Your task to perform on an android device: open app "WhatsApp Messenger" (install if not already installed) Image 0: 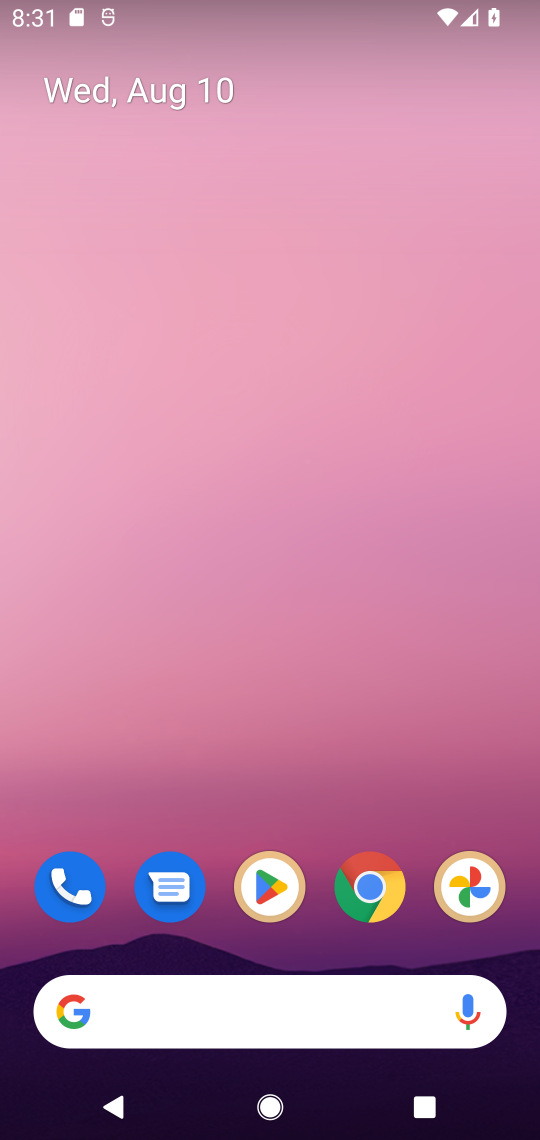
Step 0: drag from (307, 959) to (298, 153)
Your task to perform on an android device: open app "WhatsApp Messenger" (install if not already installed) Image 1: 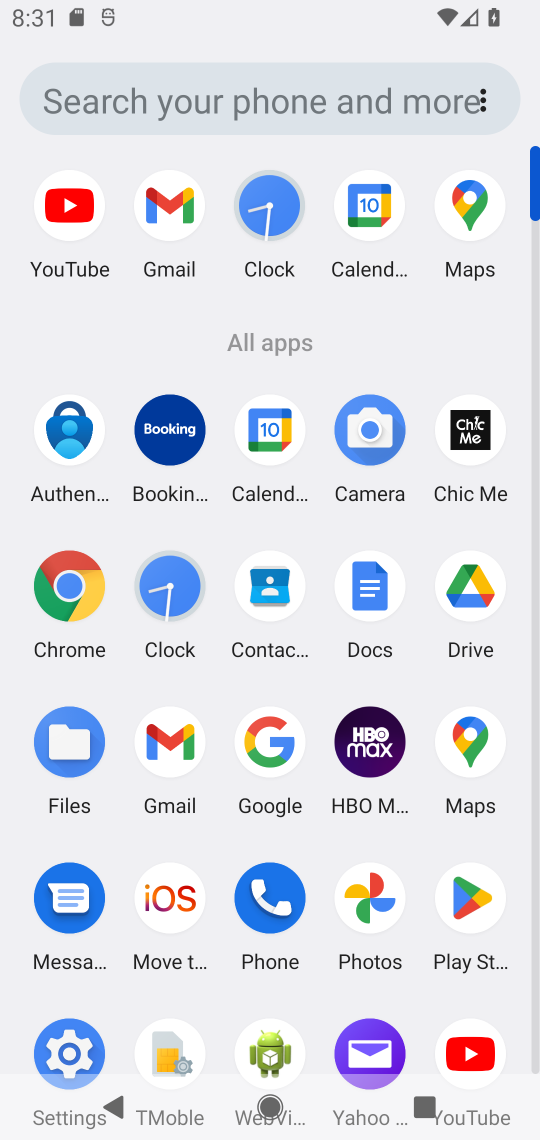
Step 1: click (502, 922)
Your task to perform on an android device: open app "WhatsApp Messenger" (install if not already installed) Image 2: 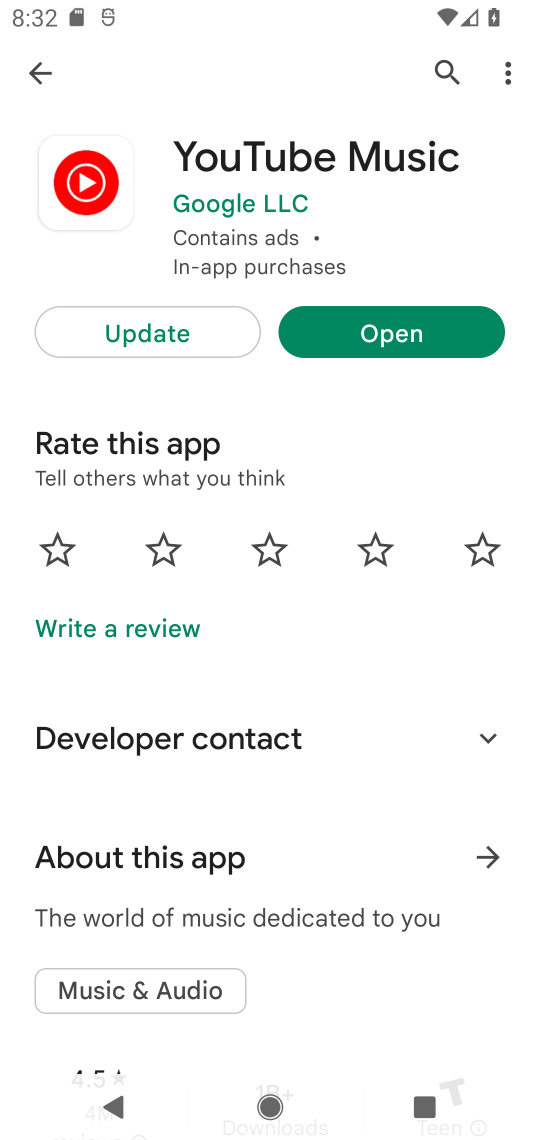
Step 2: click (439, 95)
Your task to perform on an android device: open app "WhatsApp Messenger" (install if not already installed) Image 3: 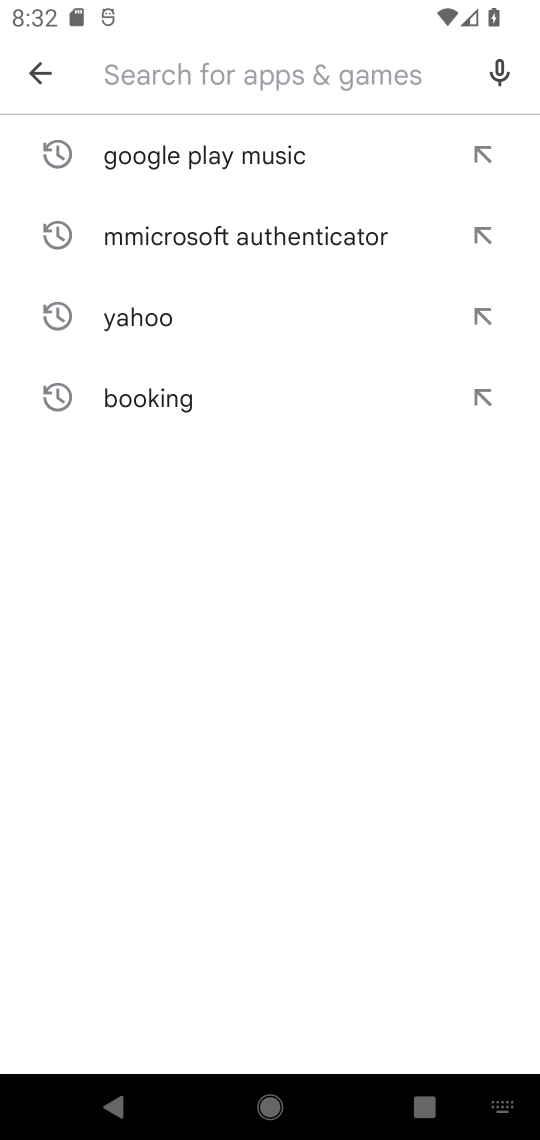
Step 3: type "whatapp"
Your task to perform on an android device: open app "WhatsApp Messenger" (install if not already installed) Image 4: 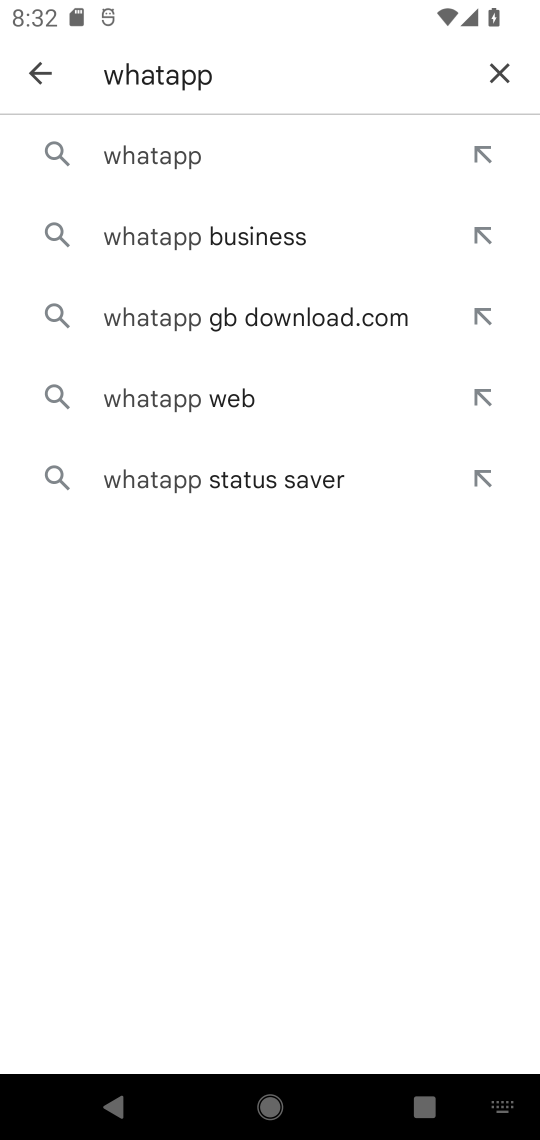
Step 4: click (236, 126)
Your task to perform on an android device: open app "WhatsApp Messenger" (install if not already installed) Image 5: 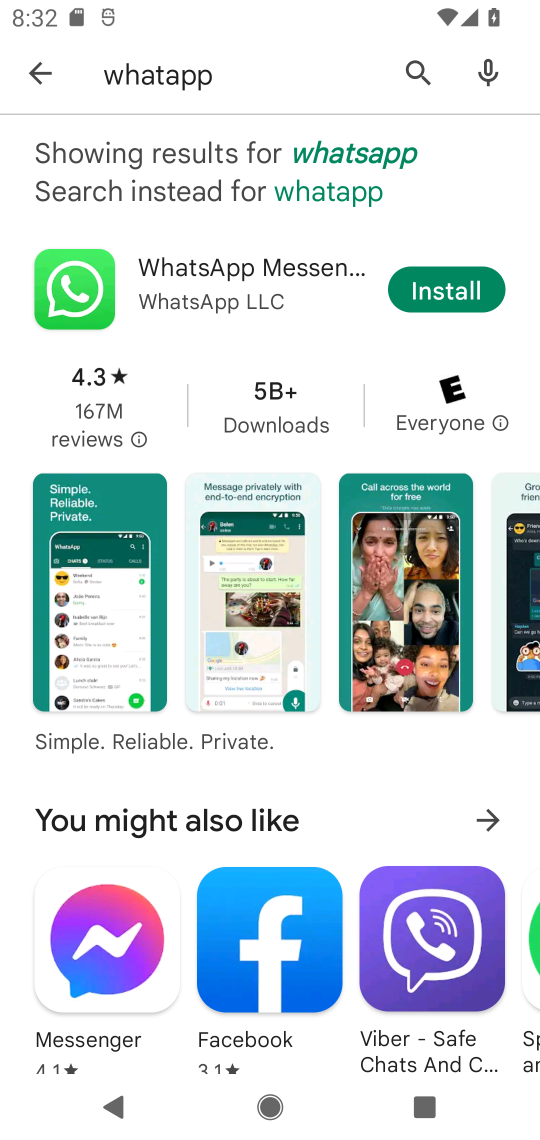
Step 5: click (432, 286)
Your task to perform on an android device: open app "WhatsApp Messenger" (install if not already installed) Image 6: 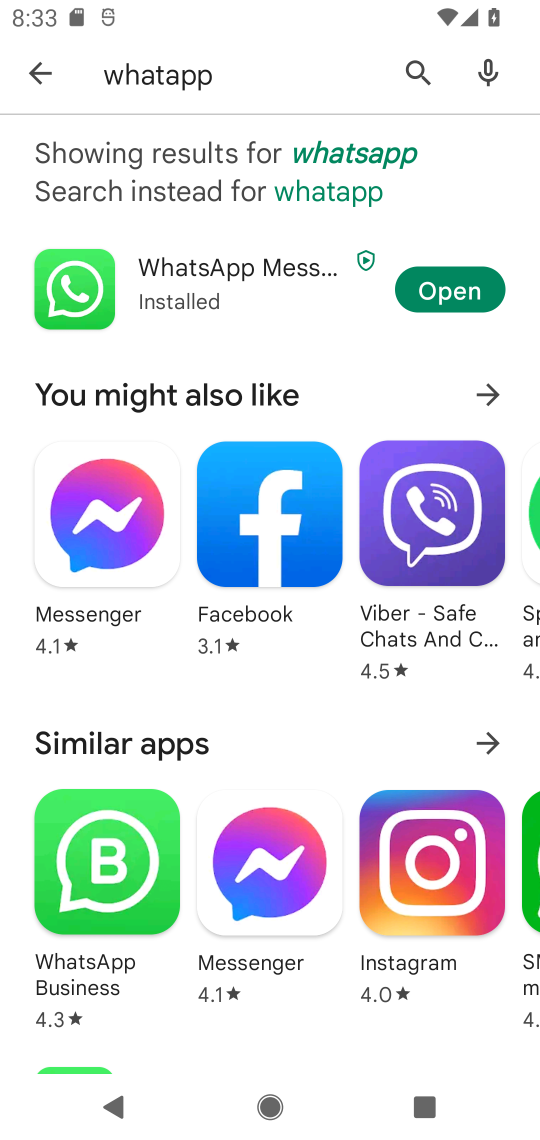
Step 6: click (450, 272)
Your task to perform on an android device: open app "WhatsApp Messenger" (install if not already installed) Image 7: 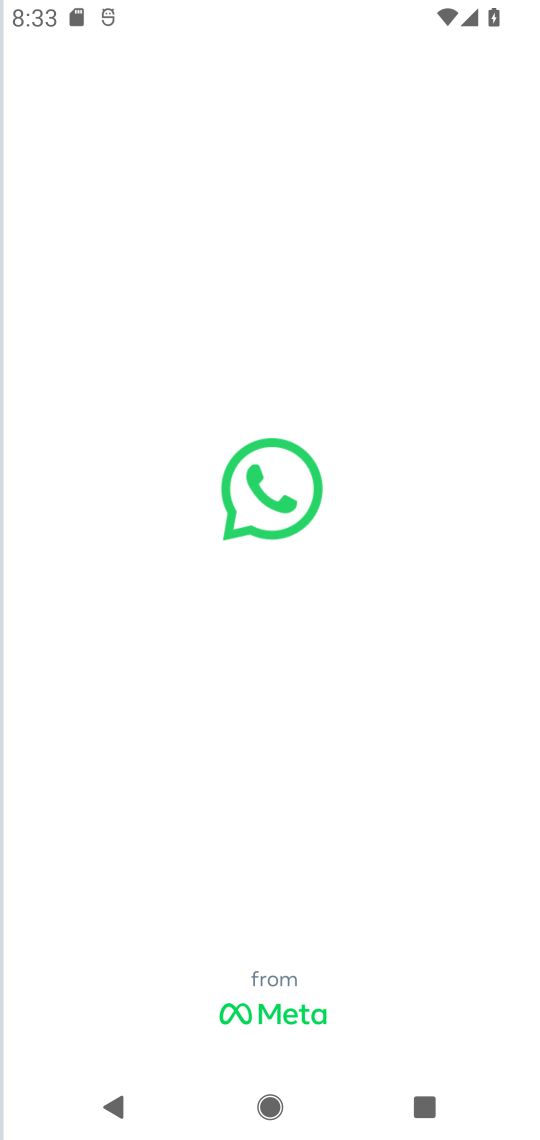
Step 7: task complete